Your task to perform on an android device: Open sound settings Image 0: 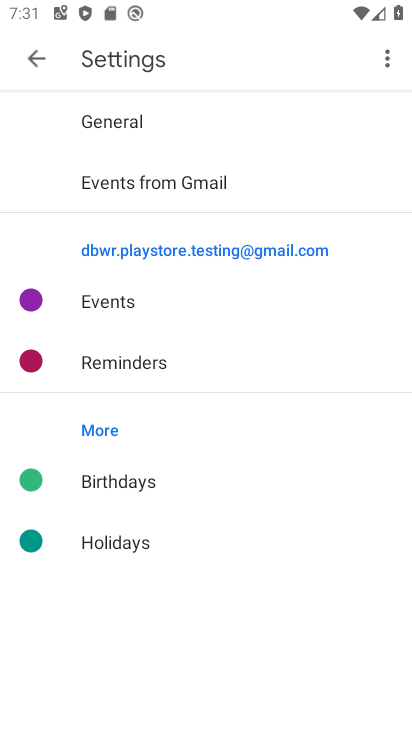
Step 0: press home button
Your task to perform on an android device: Open sound settings Image 1: 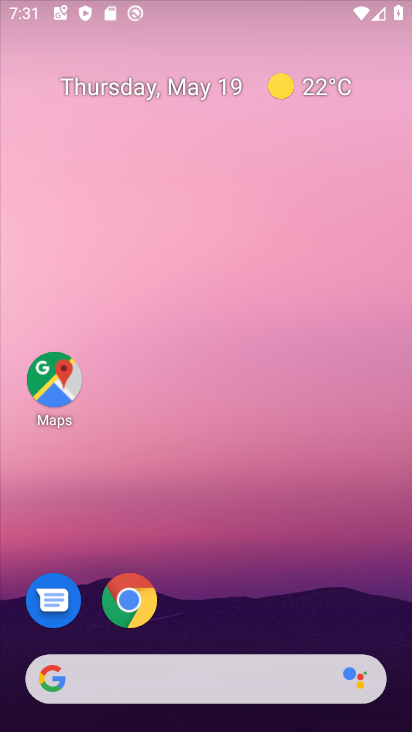
Step 1: drag from (376, 641) to (357, 140)
Your task to perform on an android device: Open sound settings Image 2: 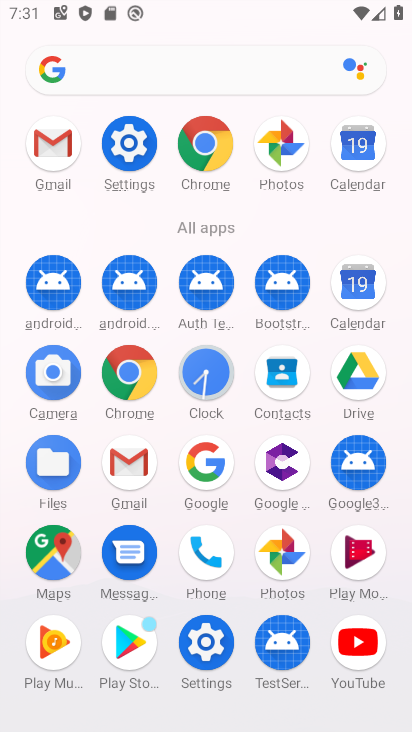
Step 2: click (104, 139)
Your task to perform on an android device: Open sound settings Image 3: 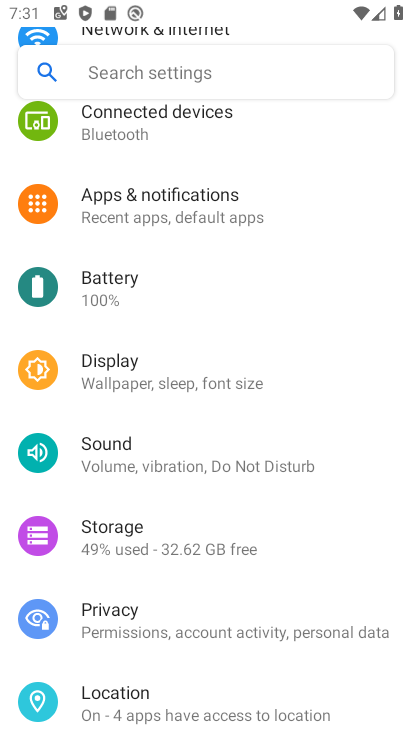
Step 3: click (155, 460)
Your task to perform on an android device: Open sound settings Image 4: 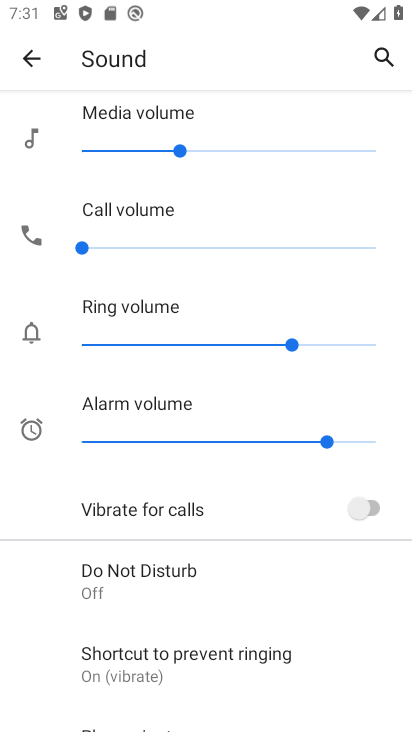
Step 4: task complete